Your task to perform on an android device: toggle notifications settings in the gmail app Image 0: 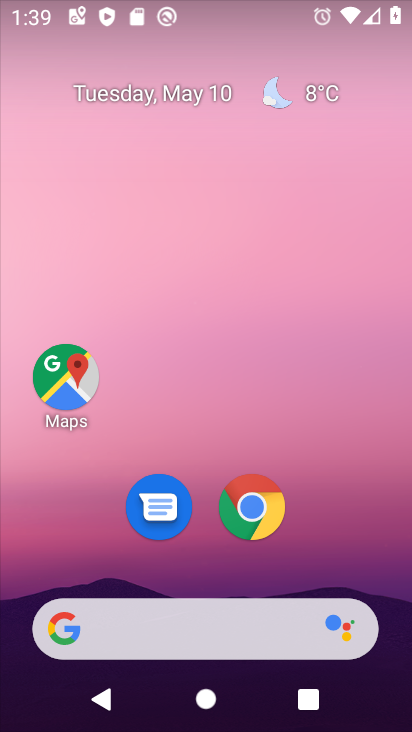
Step 0: drag from (221, 726) to (219, 253)
Your task to perform on an android device: toggle notifications settings in the gmail app Image 1: 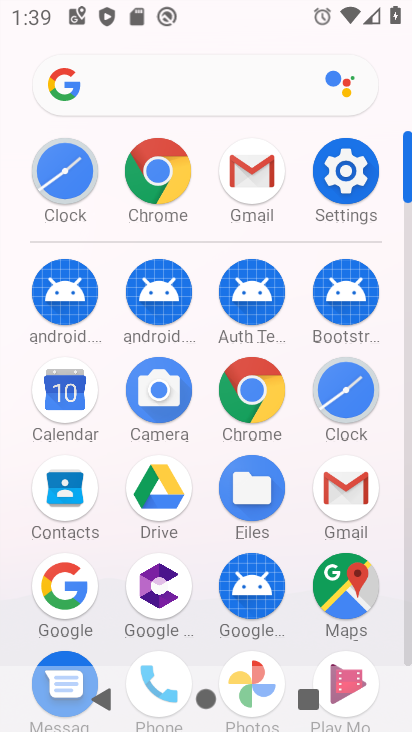
Step 1: click (352, 493)
Your task to perform on an android device: toggle notifications settings in the gmail app Image 2: 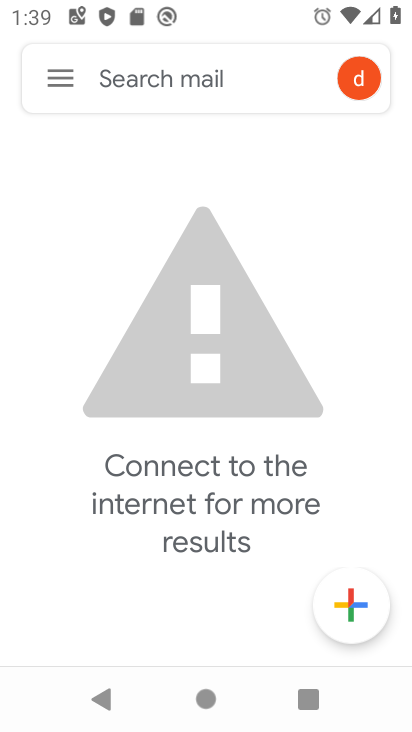
Step 2: click (61, 79)
Your task to perform on an android device: toggle notifications settings in the gmail app Image 3: 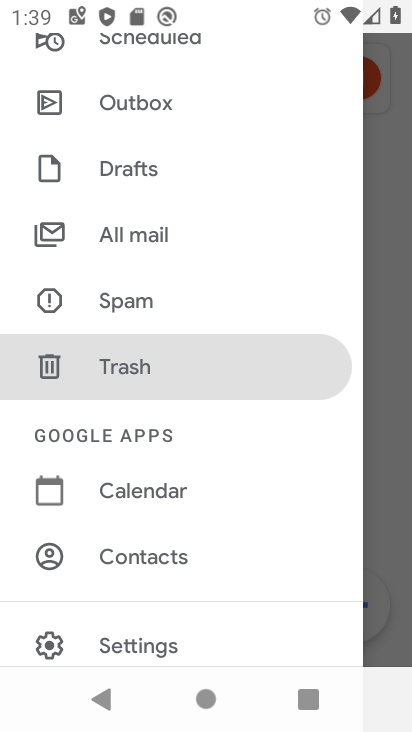
Step 3: drag from (162, 609) to (191, 252)
Your task to perform on an android device: toggle notifications settings in the gmail app Image 4: 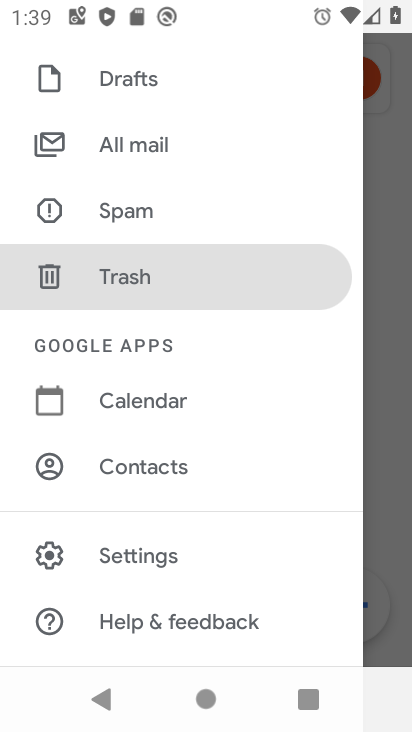
Step 4: drag from (201, 149) to (210, 111)
Your task to perform on an android device: toggle notifications settings in the gmail app Image 5: 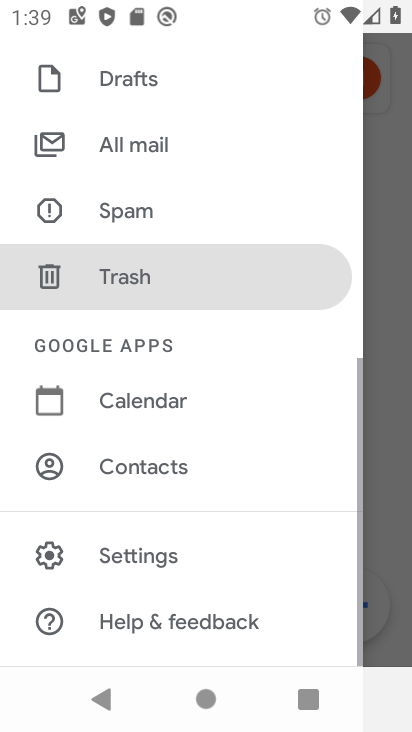
Step 5: click (123, 555)
Your task to perform on an android device: toggle notifications settings in the gmail app Image 6: 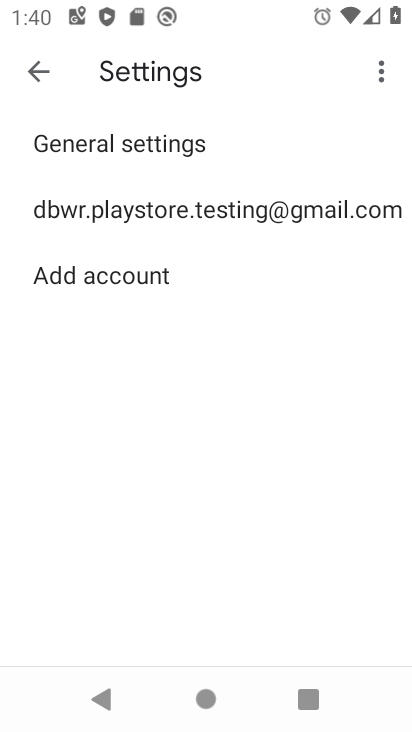
Step 6: click (191, 208)
Your task to perform on an android device: toggle notifications settings in the gmail app Image 7: 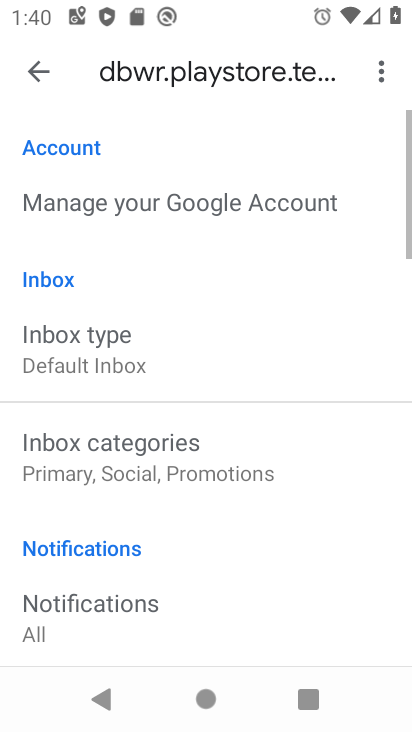
Step 7: drag from (175, 594) to (172, 360)
Your task to perform on an android device: toggle notifications settings in the gmail app Image 8: 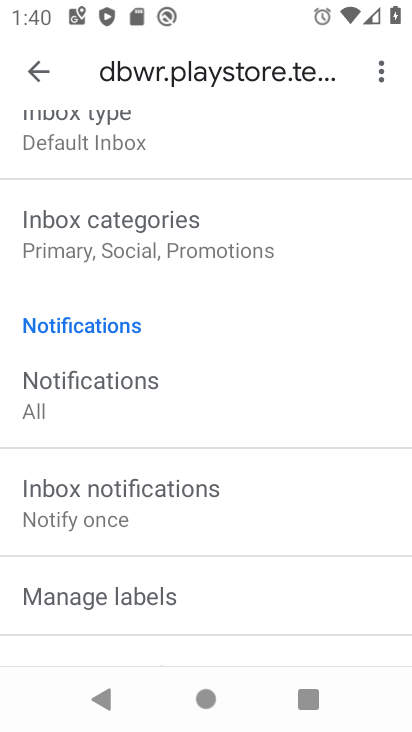
Step 8: drag from (211, 593) to (210, 439)
Your task to perform on an android device: toggle notifications settings in the gmail app Image 9: 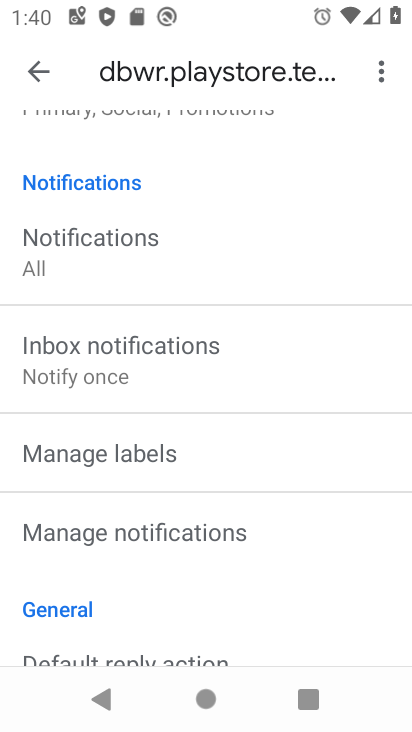
Step 9: click (86, 356)
Your task to perform on an android device: toggle notifications settings in the gmail app Image 10: 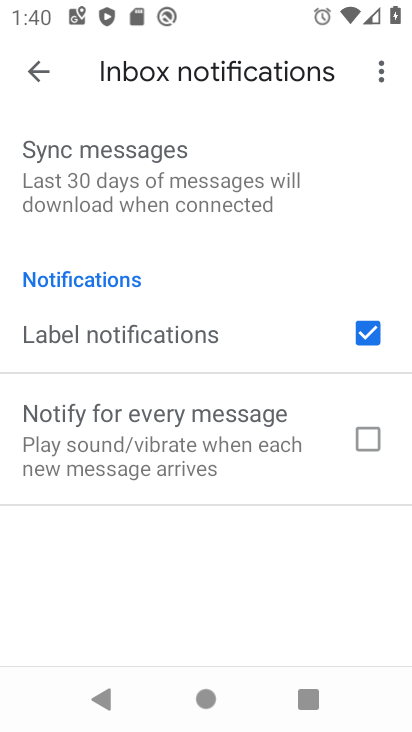
Step 10: click (362, 442)
Your task to perform on an android device: toggle notifications settings in the gmail app Image 11: 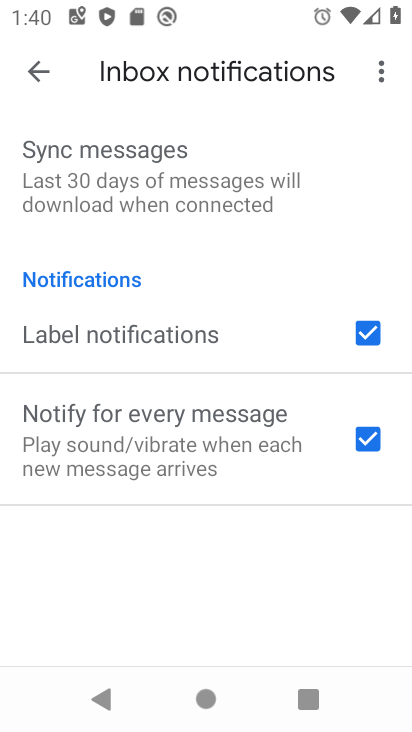
Step 11: task complete